Your task to perform on an android device: change notifications settings Image 0: 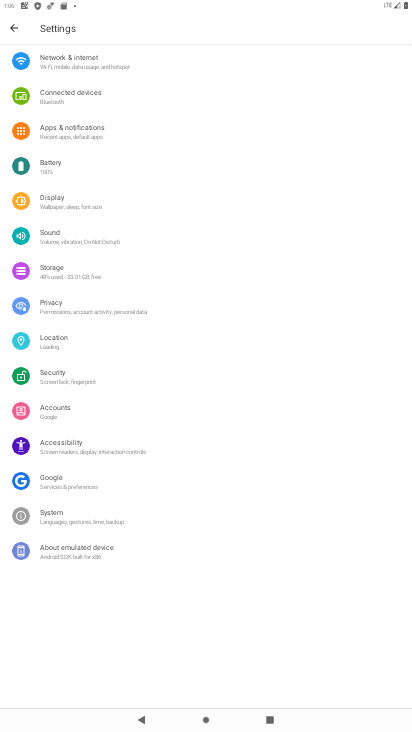
Step 0: press home button
Your task to perform on an android device: change notifications settings Image 1: 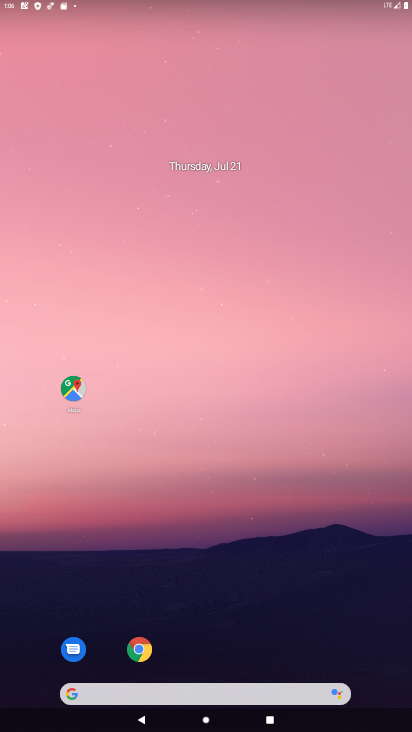
Step 1: drag from (168, 690) to (202, 298)
Your task to perform on an android device: change notifications settings Image 2: 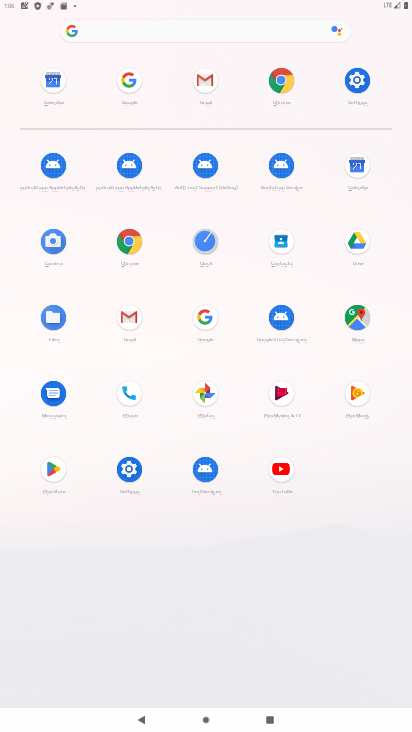
Step 2: click (350, 83)
Your task to perform on an android device: change notifications settings Image 3: 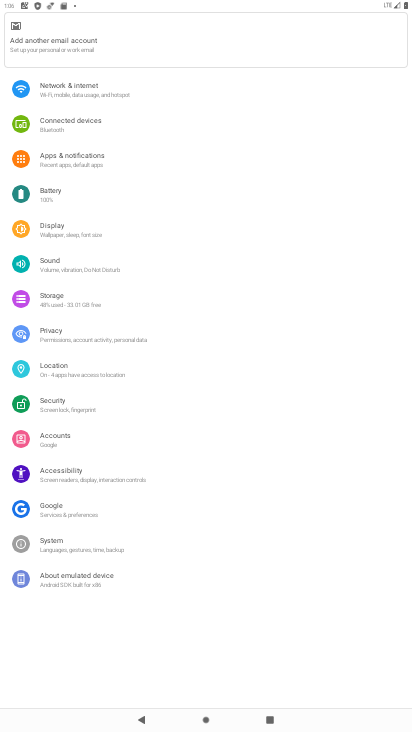
Step 3: click (83, 155)
Your task to perform on an android device: change notifications settings Image 4: 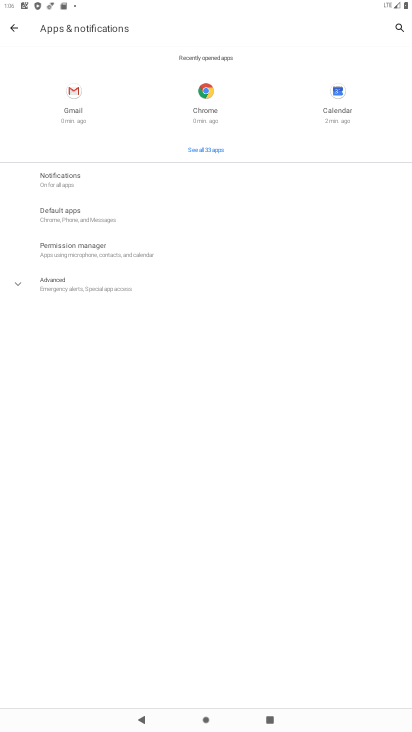
Step 4: click (93, 279)
Your task to perform on an android device: change notifications settings Image 5: 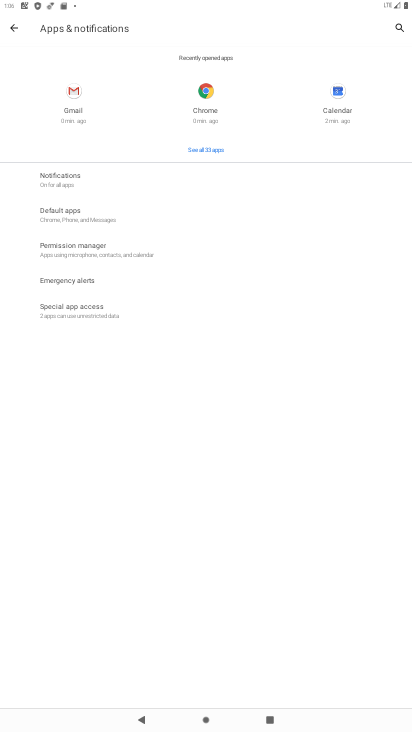
Step 5: click (184, 146)
Your task to perform on an android device: change notifications settings Image 6: 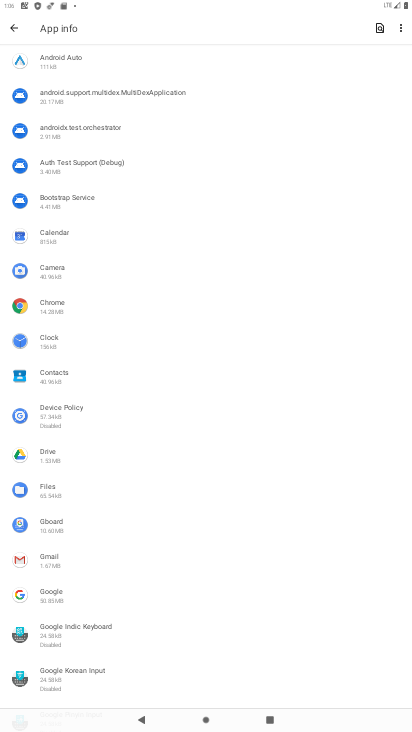
Step 6: task complete